Your task to perform on an android device: open a bookmark in the chrome app Image 0: 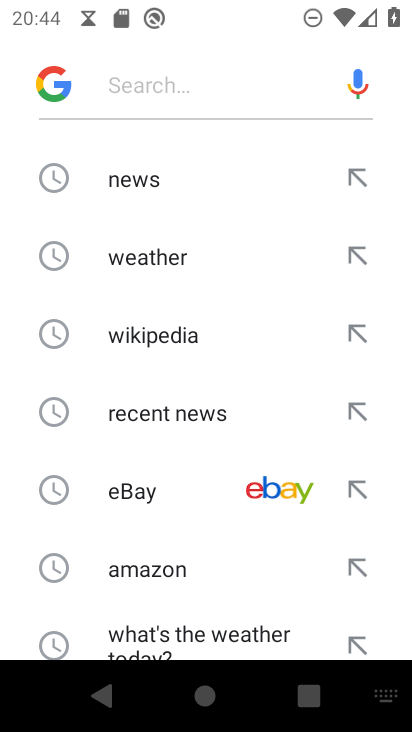
Step 0: press back button
Your task to perform on an android device: open a bookmark in the chrome app Image 1: 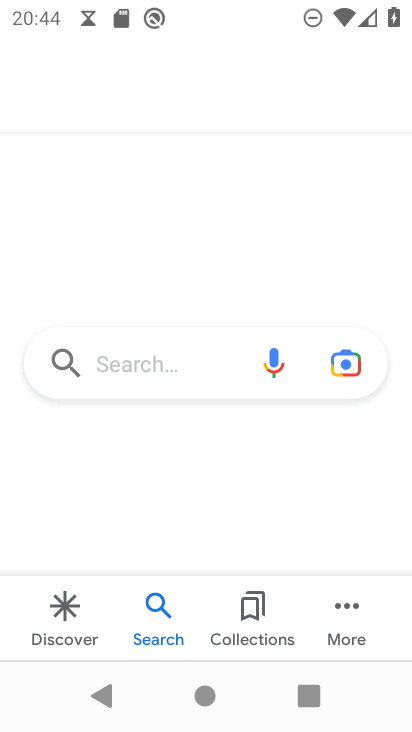
Step 1: press back button
Your task to perform on an android device: open a bookmark in the chrome app Image 2: 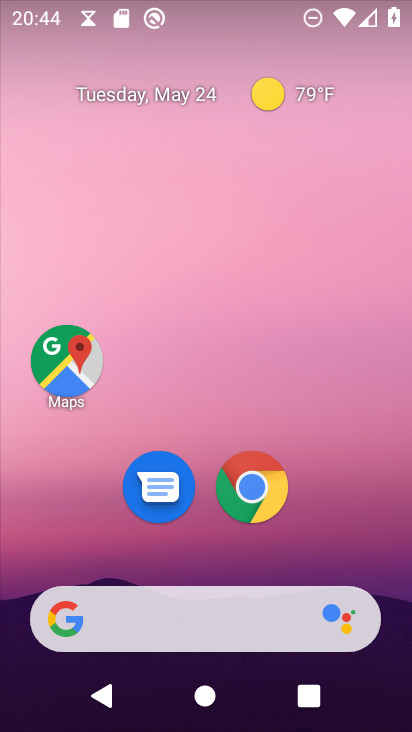
Step 2: click (255, 486)
Your task to perform on an android device: open a bookmark in the chrome app Image 3: 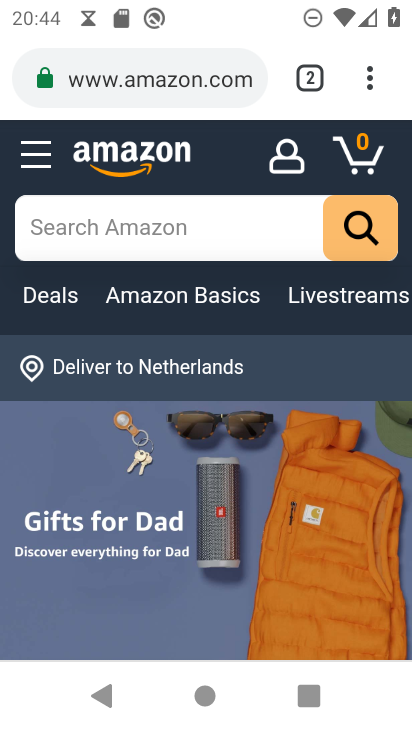
Step 3: click (372, 86)
Your task to perform on an android device: open a bookmark in the chrome app Image 4: 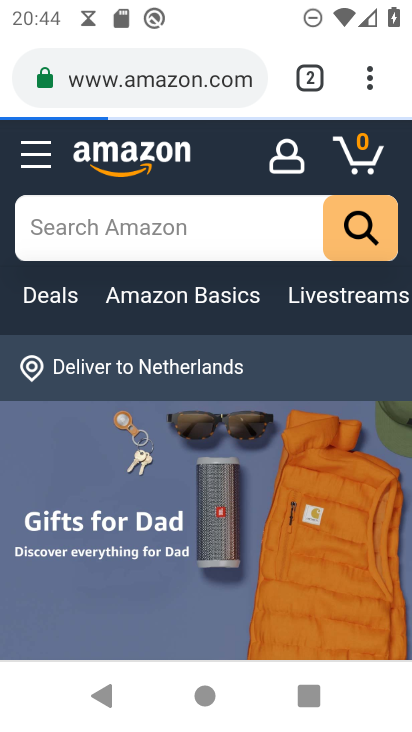
Step 4: click (371, 89)
Your task to perform on an android device: open a bookmark in the chrome app Image 5: 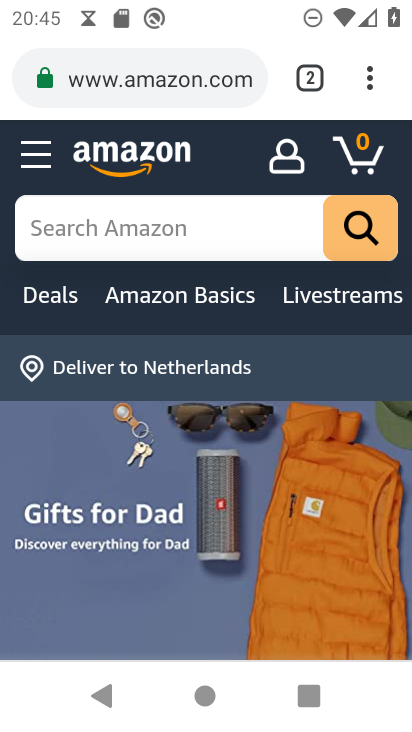
Step 5: click (358, 88)
Your task to perform on an android device: open a bookmark in the chrome app Image 6: 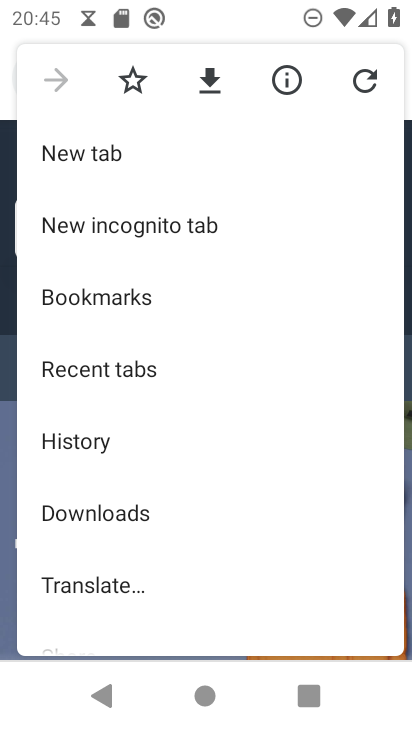
Step 6: click (58, 307)
Your task to perform on an android device: open a bookmark in the chrome app Image 7: 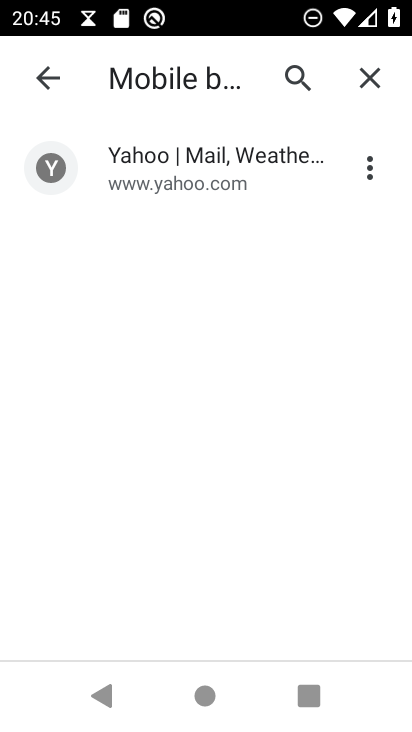
Step 7: task complete